Your task to perform on an android device: Search for seafood restaurants on Google Maps Image 0: 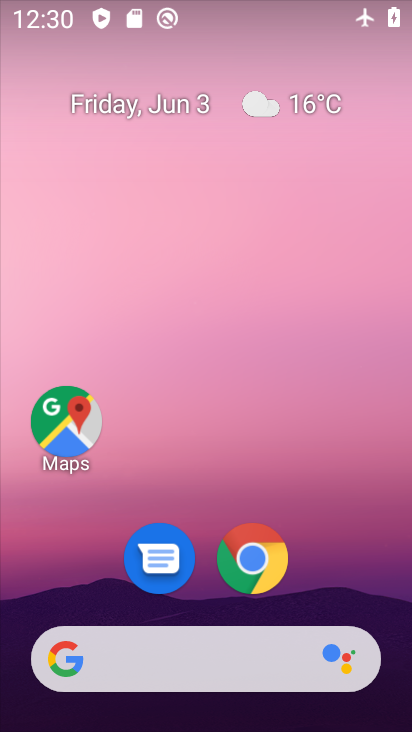
Step 0: drag from (353, 585) to (369, 213)
Your task to perform on an android device: Search for seafood restaurants on Google Maps Image 1: 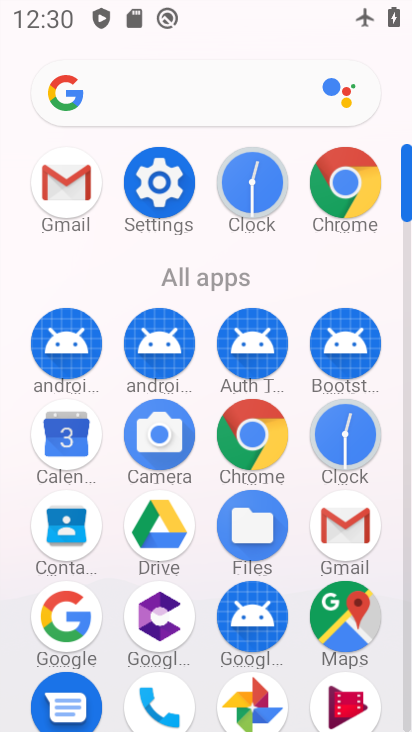
Step 1: click (359, 610)
Your task to perform on an android device: Search for seafood restaurants on Google Maps Image 2: 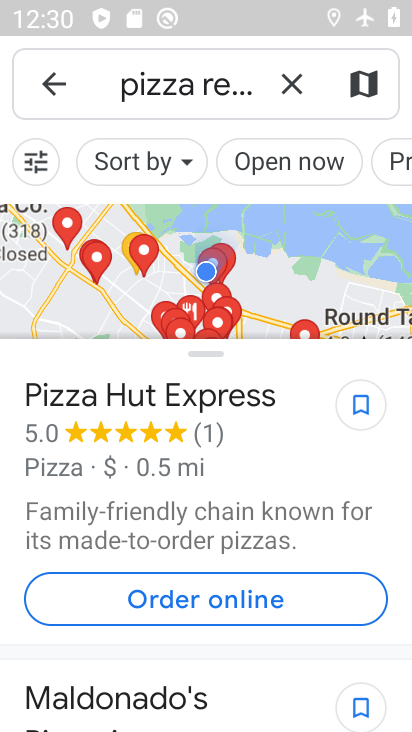
Step 2: click (300, 89)
Your task to perform on an android device: Search for seafood restaurants on Google Maps Image 3: 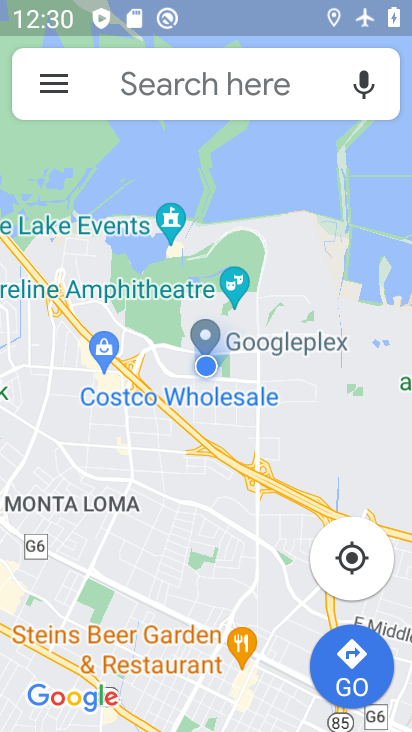
Step 3: click (261, 85)
Your task to perform on an android device: Search for seafood restaurants on Google Maps Image 4: 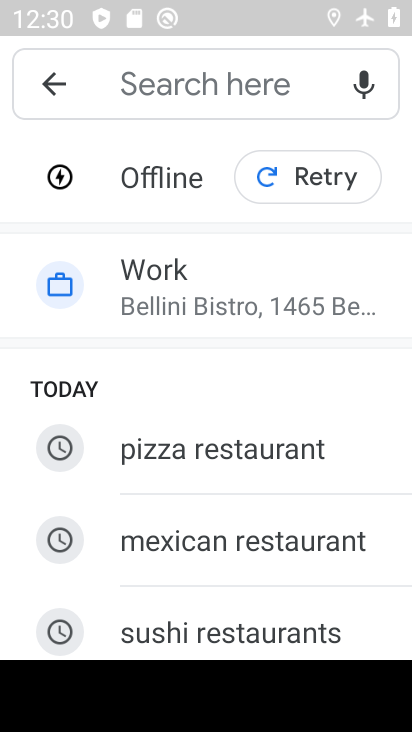
Step 4: type "seafood restaurants"
Your task to perform on an android device: Search for seafood restaurants on Google Maps Image 5: 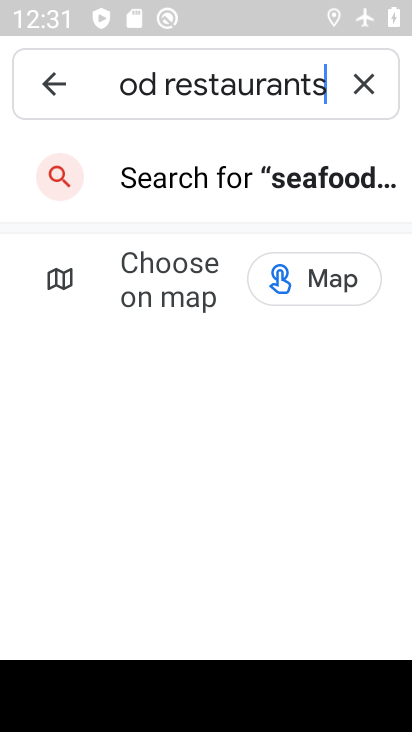
Step 5: click (364, 188)
Your task to perform on an android device: Search for seafood restaurants on Google Maps Image 6: 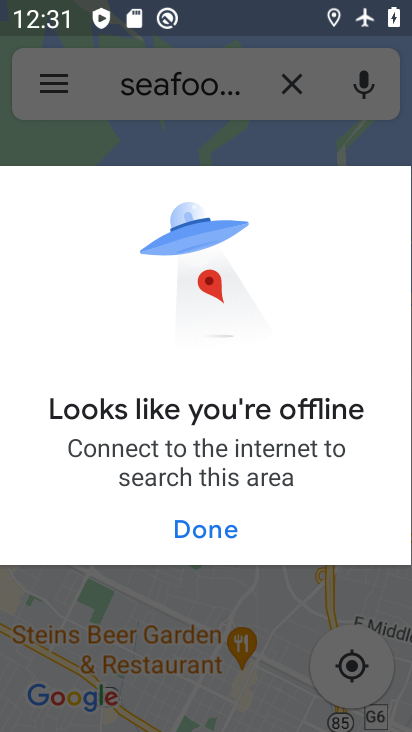
Step 6: task complete